Your task to perform on an android device: check google app version Image 0: 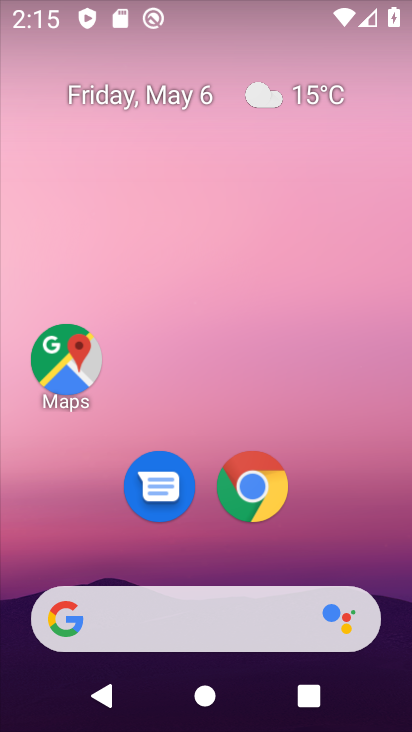
Step 0: drag from (334, 508) to (258, 31)
Your task to perform on an android device: check google app version Image 1: 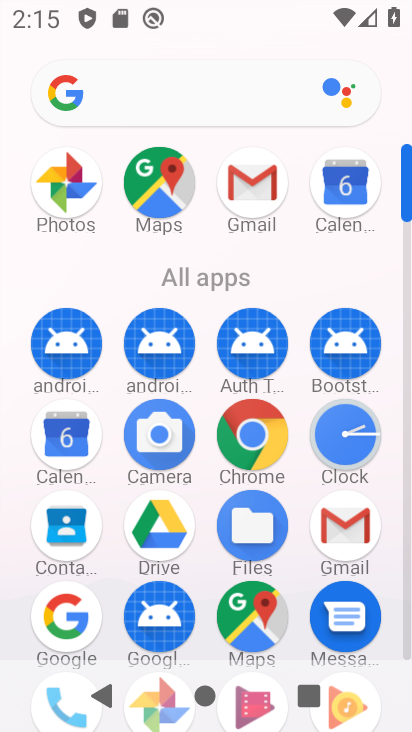
Step 1: click (72, 612)
Your task to perform on an android device: check google app version Image 2: 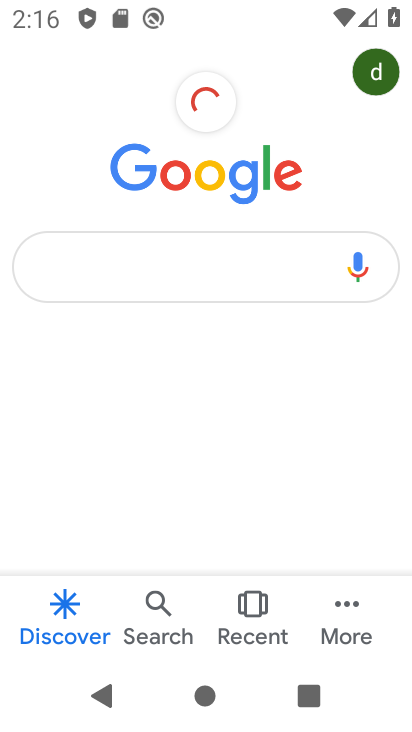
Step 2: click (350, 610)
Your task to perform on an android device: check google app version Image 3: 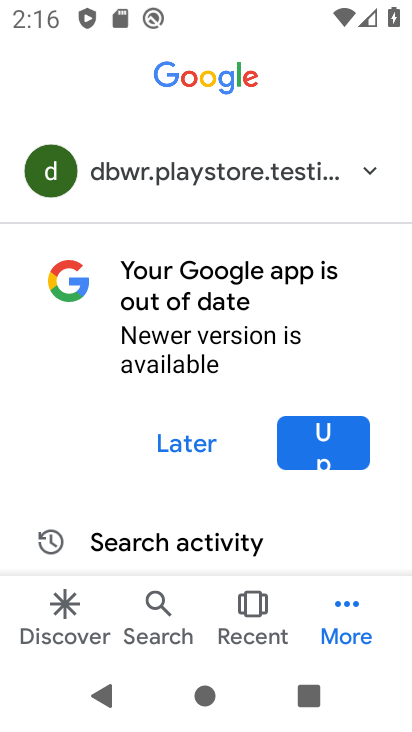
Step 3: drag from (200, 501) to (131, 69)
Your task to perform on an android device: check google app version Image 4: 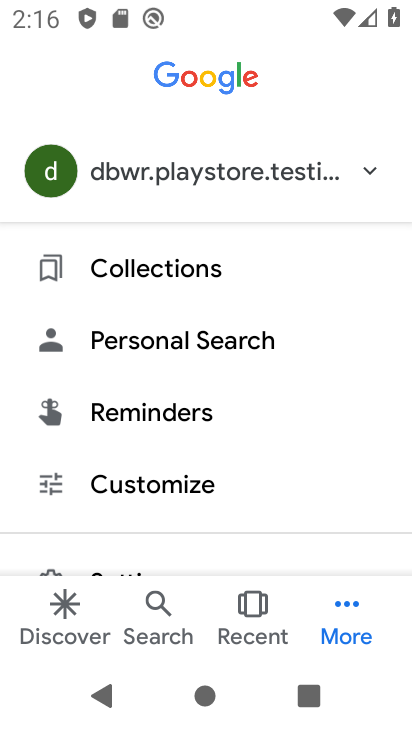
Step 4: drag from (279, 488) to (240, 207)
Your task to perform on an android device: check google app version Image 5: 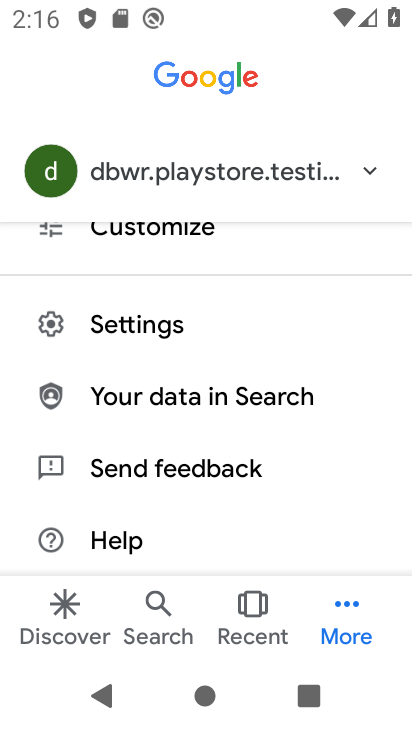
Step 5: click (111, 326)
Your task to perform on an android device: check google app version Image 6: 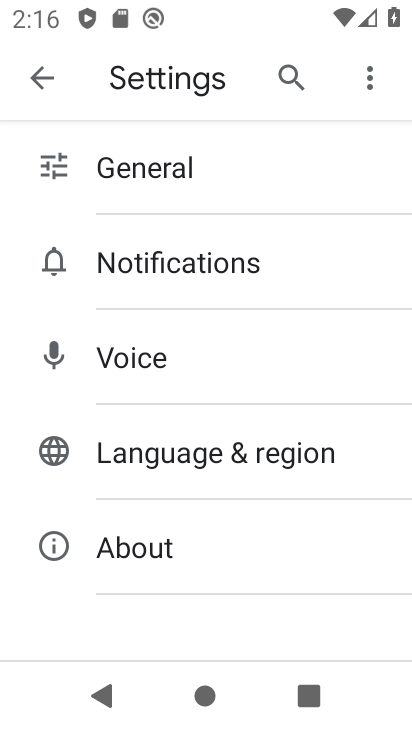
Step 6: click (141, 551)
Your task to perform on an android device: check google app version Image 7: 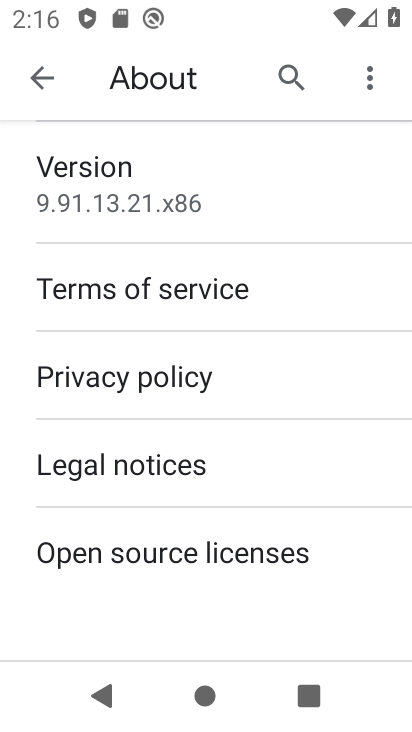
Step 7: task complete